Your task to perform on an android device: Show me the alarms in the clock app Image 0: 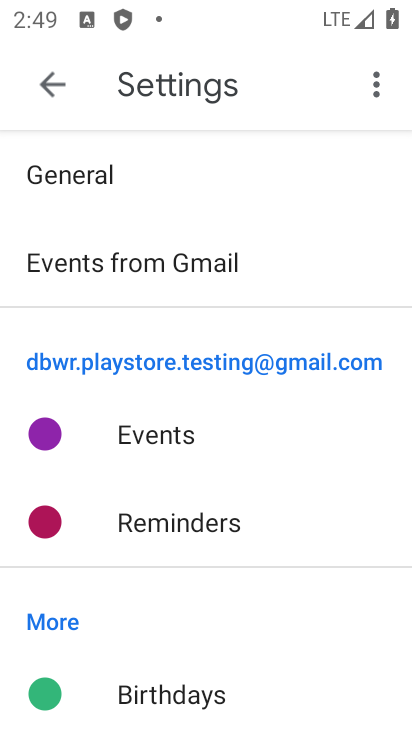
Step 0: press home button
Your task to perform on an android device: Show me the alarms in the clock app Image 1: 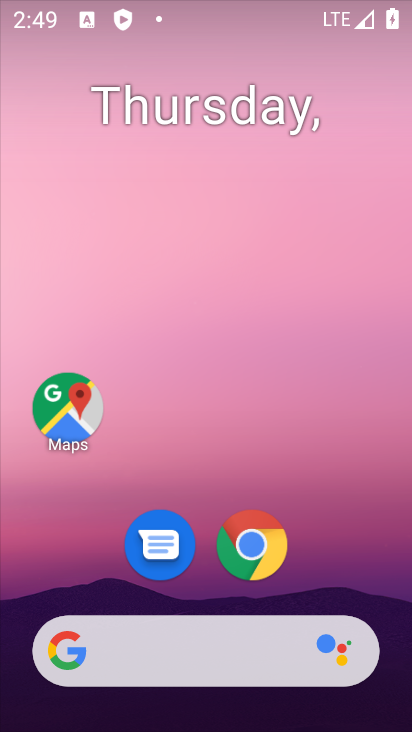
Step 1: drag from (260, 649) to (294, 5)
Your task to perform on an android device: Show me the alarms in the clock app Image 2: 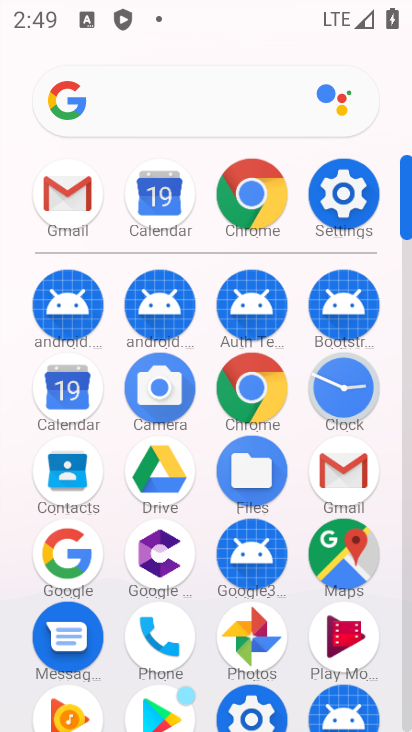
Step 2: click (334, 393)
Your task to perform on an android device: Show me the alarms in the clock app Image 3: 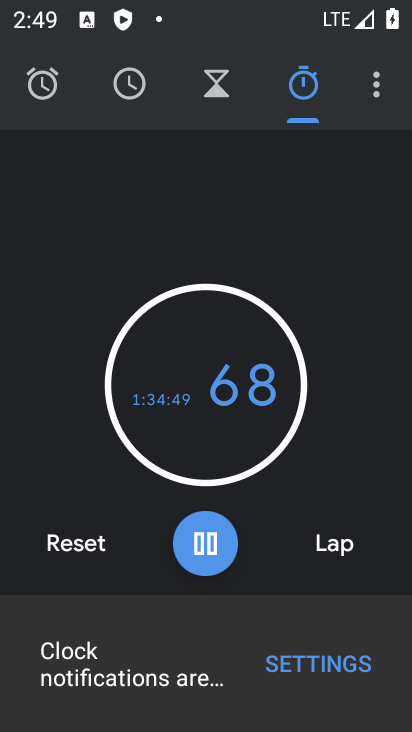
Step 3: click (57, 86)
Your task to perform on an android device: Show me the alarms in the clock app Image 4: 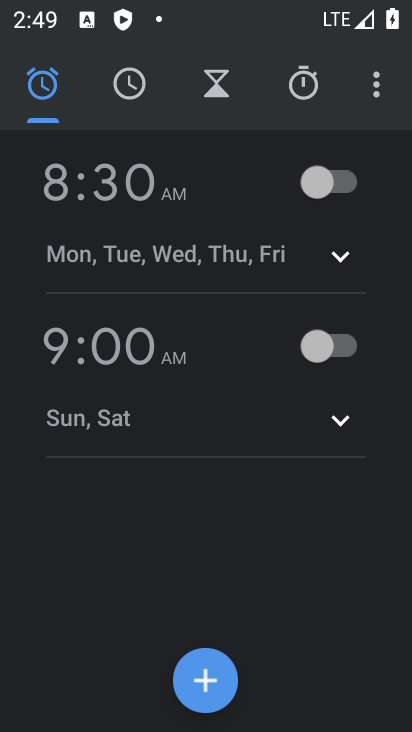
Step 4: task complete